Your task to perform on an android device: turn on data saver in the chrome app Image 0: 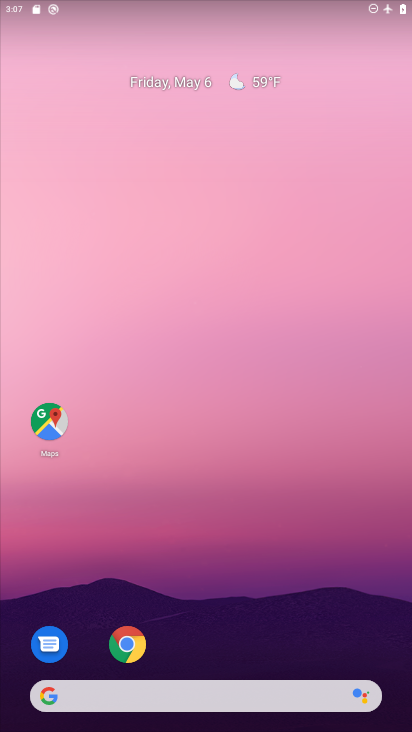
Step 0: click (131, 656)
Your task to perform on an android device: turn on data saver in the chrome app Image 1: 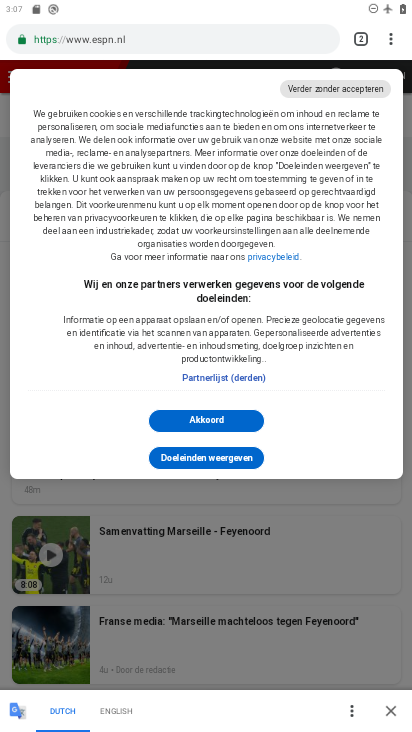
Step 1: drag from (391, 36) to (272, 428)
Your task to perform on an android device: turn on data saver in the chrome app Image 2: 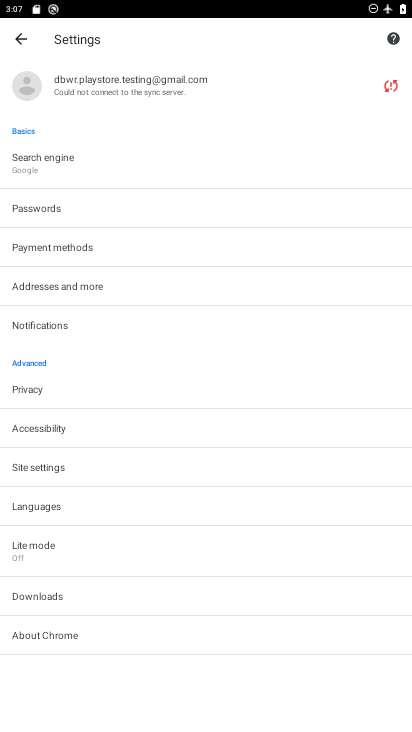
Step 2: click (59, 542)
Your task to perform on an android device: turn on data saver in the chrome app Image 3: 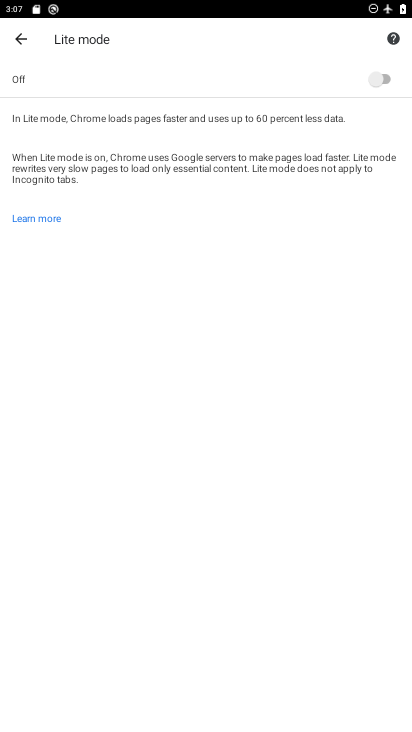
Step 3: click (383, 81)
Your task to perform on an android device: turn on data saver in the chrome app Image 4: 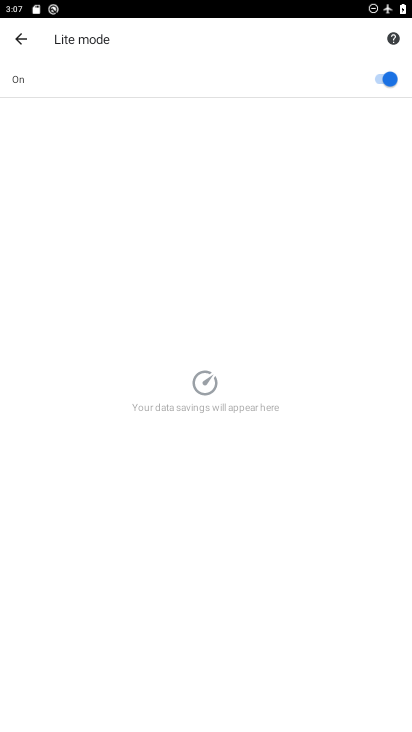
Step 4: task complete